Your task to perform on an android device: Open calendar and show me the fourth week of next month Image 0: 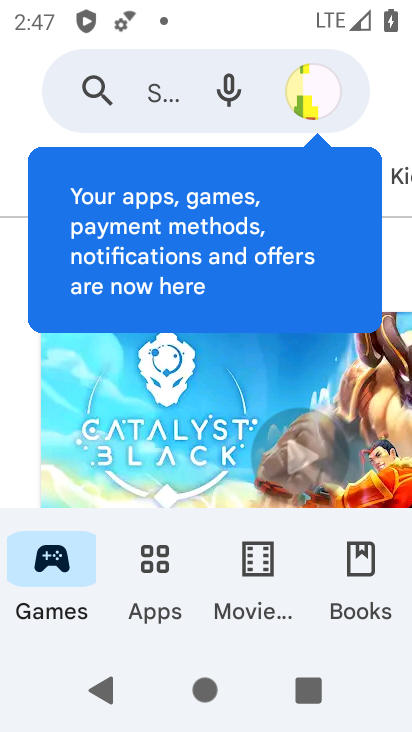
Step 0: press back button
Your task to perform on an android device: Open calendar and show me the fourth week of next month Image 1: 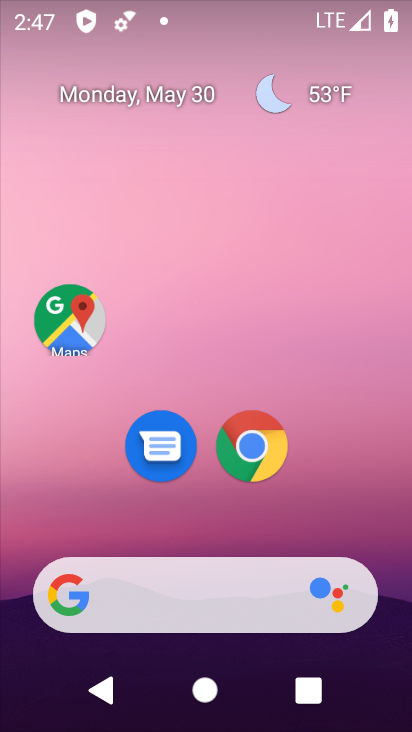
Step 1: drag from (326, 525) to (300, 64)
Your task to perform on an android device: Open calendar and show me the fourth week of next month Image 2: 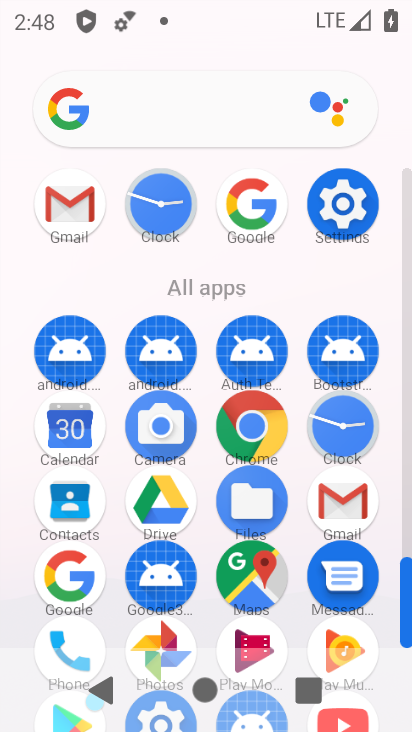
Step 2: click (71, 428)
Your task to perform on an android device: Open calendar and show me the fourth week of next month Image 3: 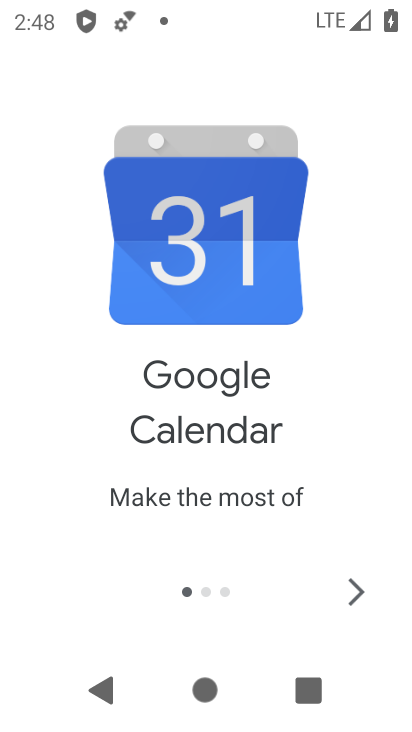
Step 3: click (359, 590)
Your task to perform on an android device: Open calendar and show me the fourth week of next month Image 4: 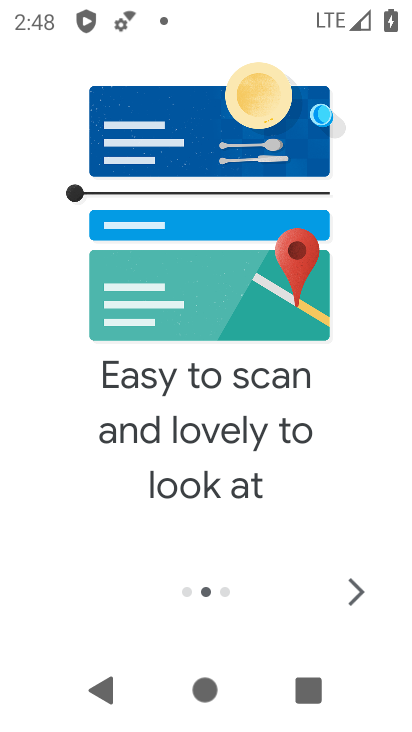
Step 4: click (359, 590)
Your task to perform on an android device: Open calendar and show me the fourth week of next month Image 5: 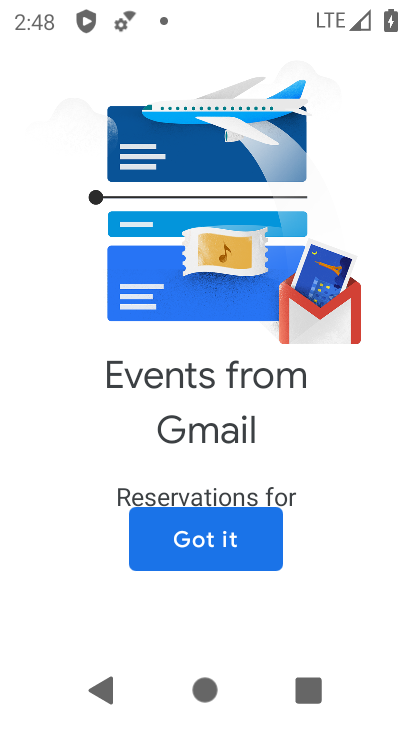
Step 5: click (197, 543)
Your task to perform on an android device: Open calendar and show me the fourth week of next month Image 6: 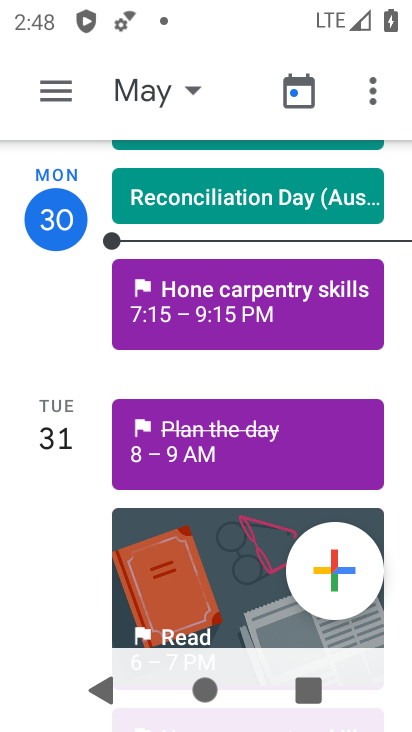
Step 6: click (183, 83)
Your task to perform on an android device: Open calendar and show me the fourth week of next month Image 7: 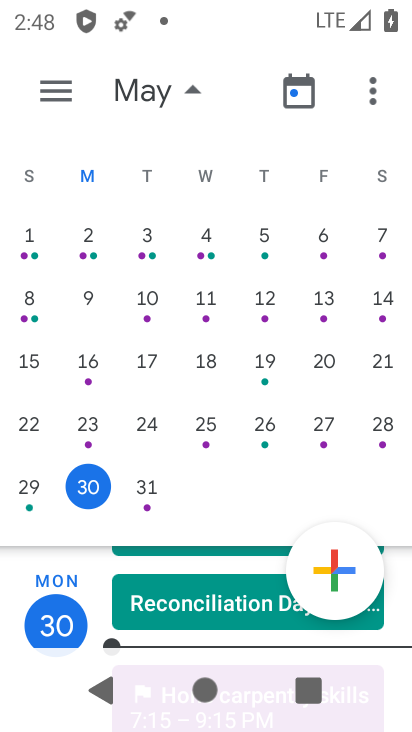
Step 7: drag from (302, 474) to (23, 528)
Your task to perform on an android device: Open calendar and show me the fourth week of next month Image 8: 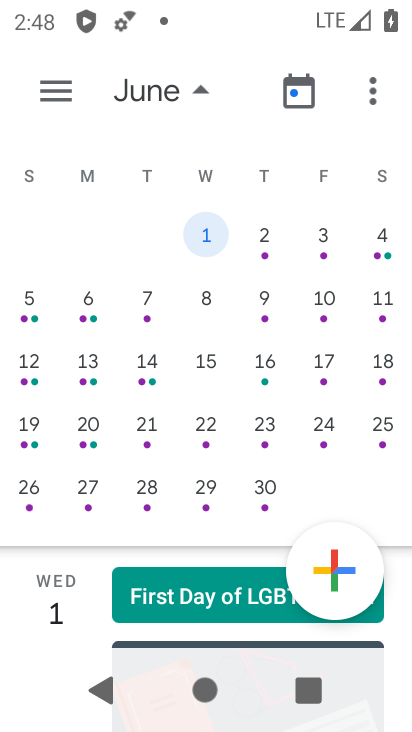
Step 8: click (84, 484)
Your task to perform on an android device: Open calendar and show me the fourth week of next month Image 9: 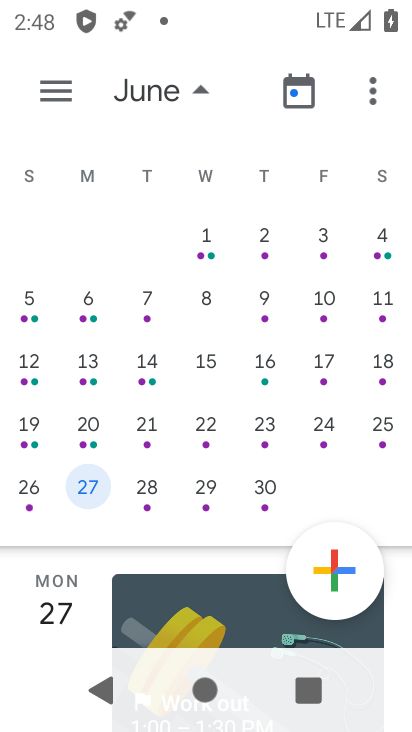
Step 9: click (60, 86)
Your task to perform on an android device: Open calendar and show me the fourth week of next month Image 10: 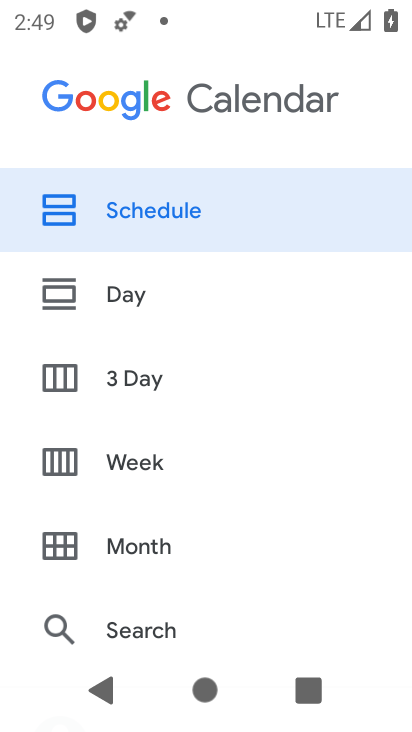
Step 10: click (146, 461)
Your task to perform on an android device: Open calendar and show me the fourth week of next month Image 11: 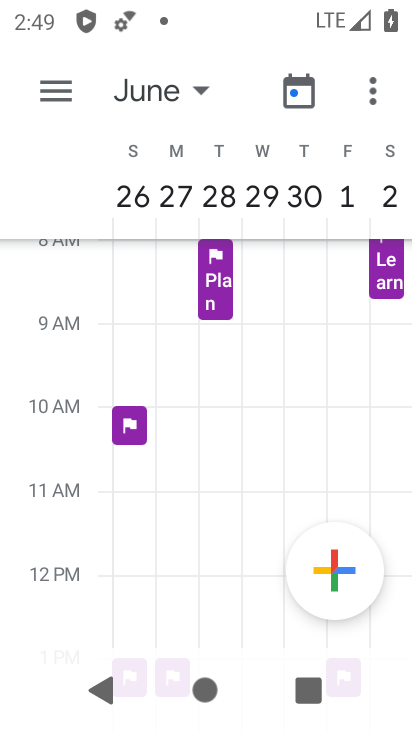
Step 11: task complete